Your task to perform on an android device: Go to network settings Image 0: 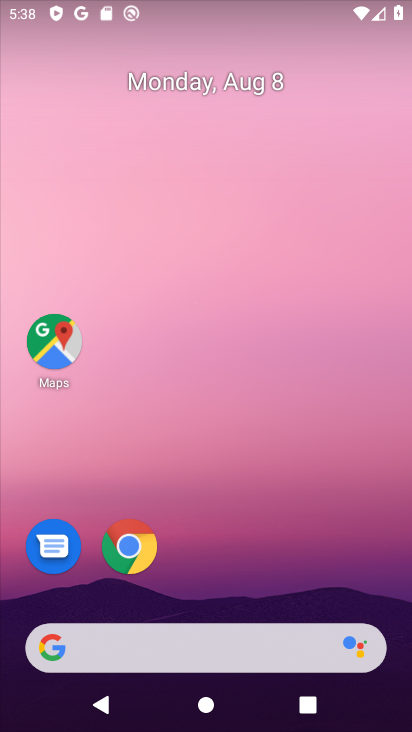
Step 0: drag from (184, 579) to (207, 215)
Your task to perform on an android device: Go to network settings Image 1: 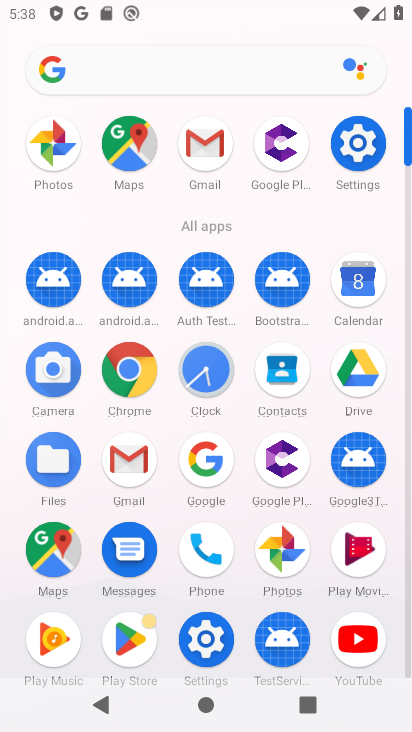
Step 1: click (340, 166)
Your task to perform on an android device: Go to network settings Image 2: 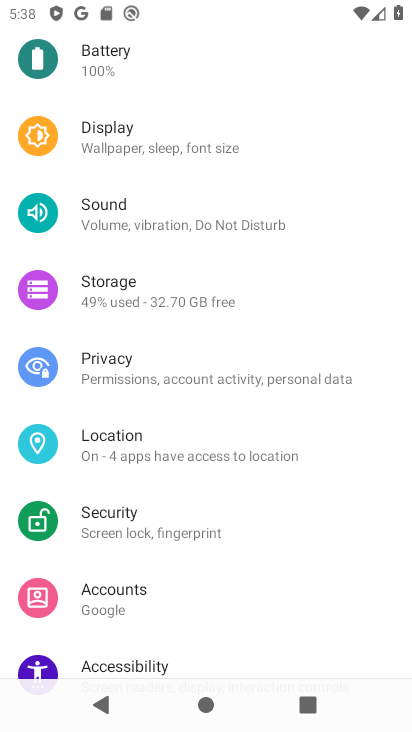
Step 2: drag from (143, 375) to (158, 468)
Your task to perform on an android device: Go to network settings Image 3: 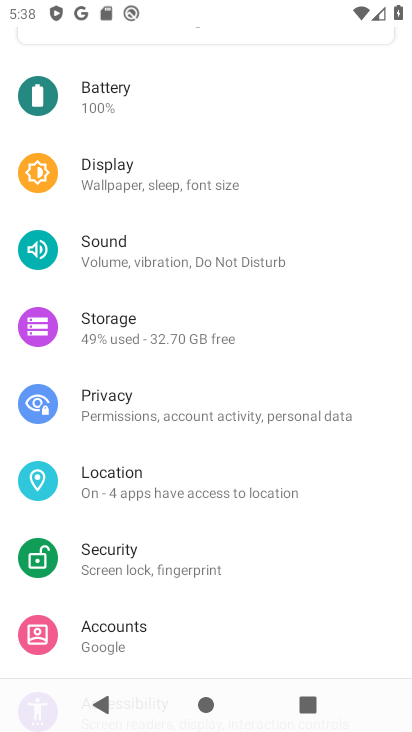
Step 3: drag from (155, 139) to (167, 489)
Your task to perform on an android device: Go to network settings Image 4: 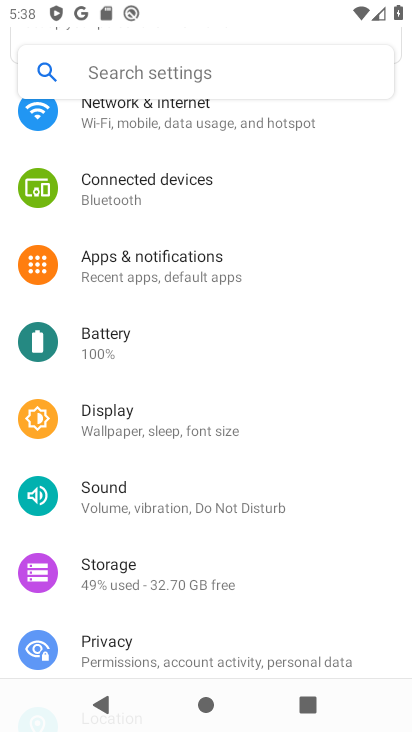
Step 4: click (145, 126)
Your task to perform on an android device: Go to network settings Image 5: 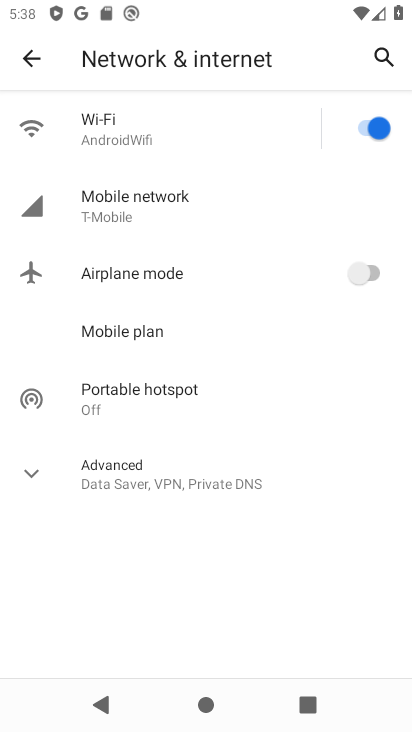
Step 5: task complete